Your task to perform on an android device: Open the calendar app, open the side menu, and click the "Day" option Image 0: 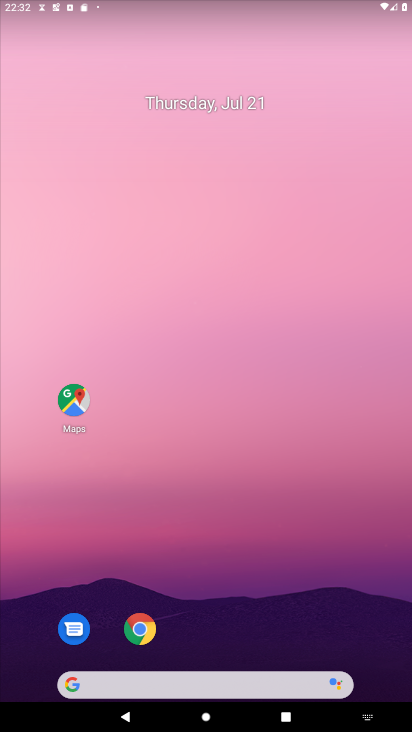
Step 0: drag from (218, 578) to (292, 83)
Your task to perform on an android device: Open the calendar app, open the side menu, and click the "Day" option Image 1: 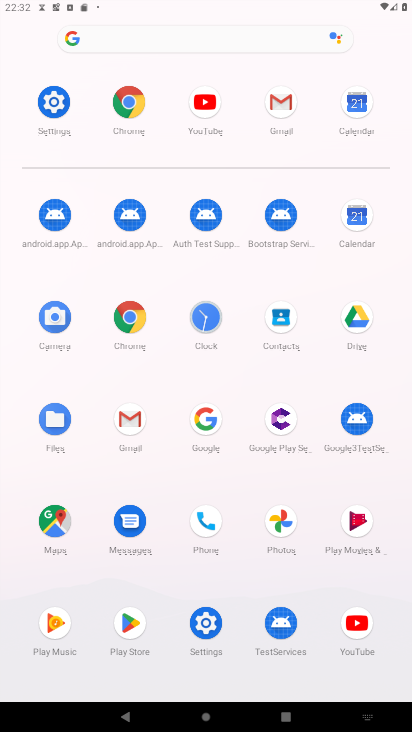
Step 1: click (369, 230)
Your task to perform on an android device: Open the calendar app, open the side menu, and click the "Day" option Image 2: 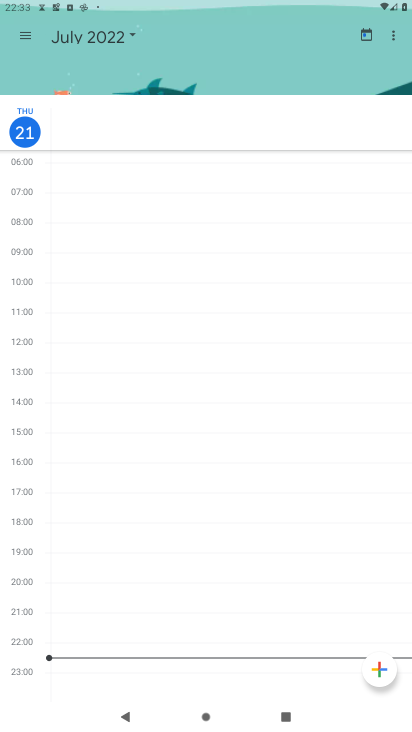
Step 2: click (31, 42)
Your task to perform on an android device: Open the calendar app, open the side menu, and click the "Day" option Image 3: 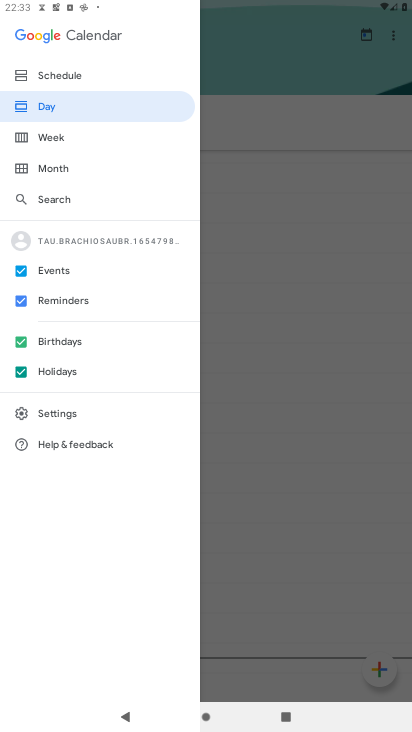
Step 3: click (79, 105)
Your task to perform on an android device: Open the calendar app, open the side menu, and click the "Day" option Image 4: 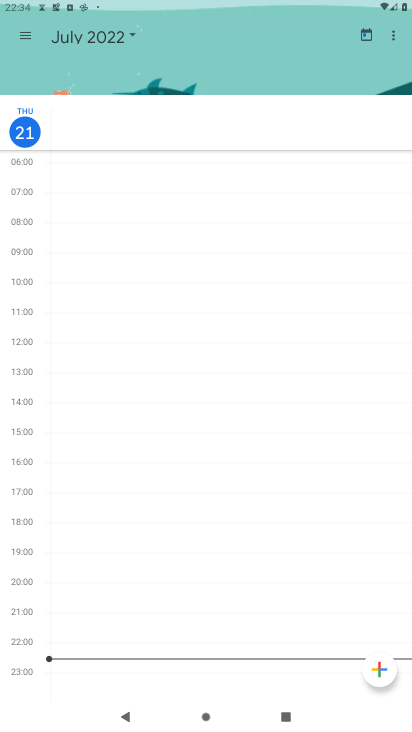
Step 4: task complete